Your task to perform on an android device: open app "Flipkart Online Shopping App" Image 0: 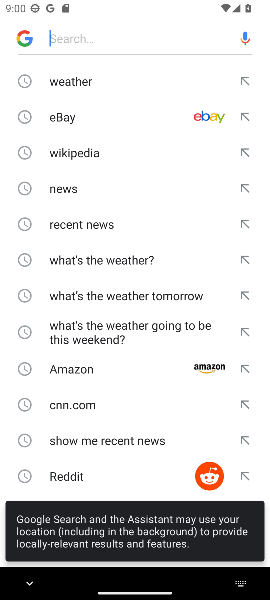
Step 0: press back button
Your task to perform on an android device: open app "Flipkart Online Shopping App" Image 1: 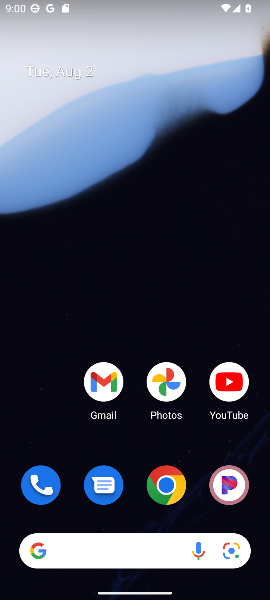
Step 1: drag from (147, 516) to (242, 2)
Your task to perform on an android device: open app "Flipkart Online Shopping App" Image 2: 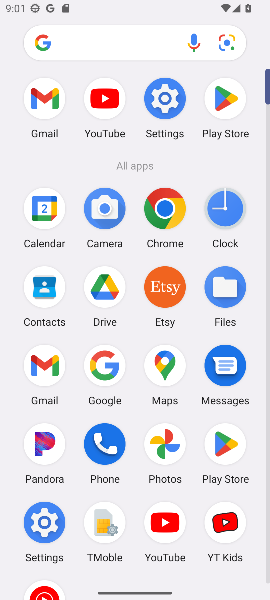
Step 2: click (213, 446)
Your task to perform on an android device: open app "Flipkart Online Shopping App" Image 3: 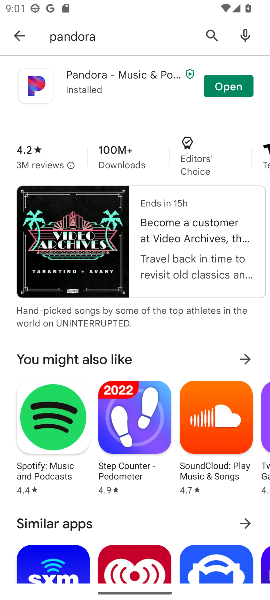
Step 3: click (25, 27)
Your task to perform on an android device: open app "Flipkart Online Shopping App" Image 4: 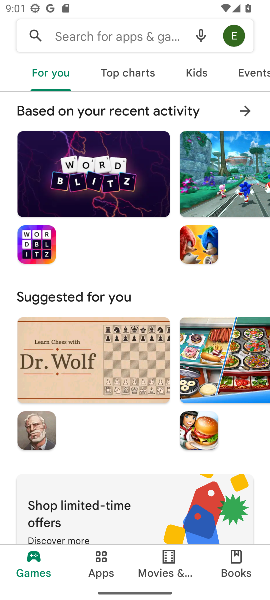
Step 4: click (141, 30)
Your task to perform on an android device: open app "Flipkart Online Shopping App" Image 5: 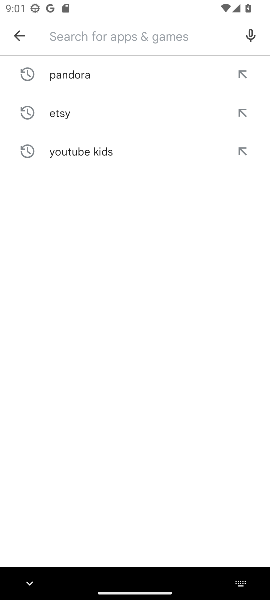
Step 5: type "Flipkart Online Shopping App"
Your task to perform on an android device: open app "Flipkart Online Shopping App" Image 6: 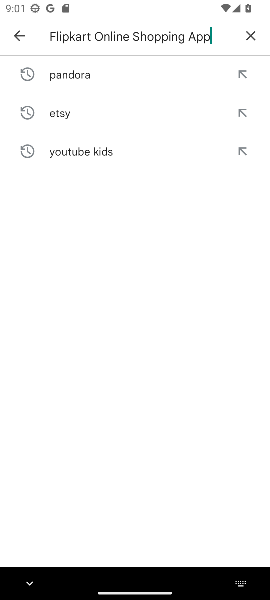
Step 6: type ""
Your task to perform on an android device: open app "Flipkart Online Shopping App" Image 7: 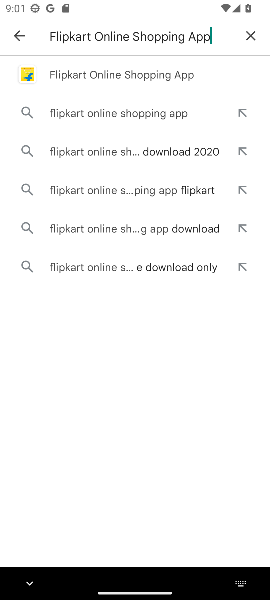
Step 7: click (111, 76)
Your task to perform on an android device: open app "Flipkart Online Shopping App" Image 8: 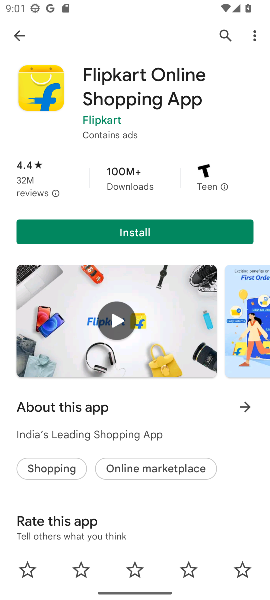
Step 8: task complete